Your task to perform on an android device: change alarm snooze length Image 0: 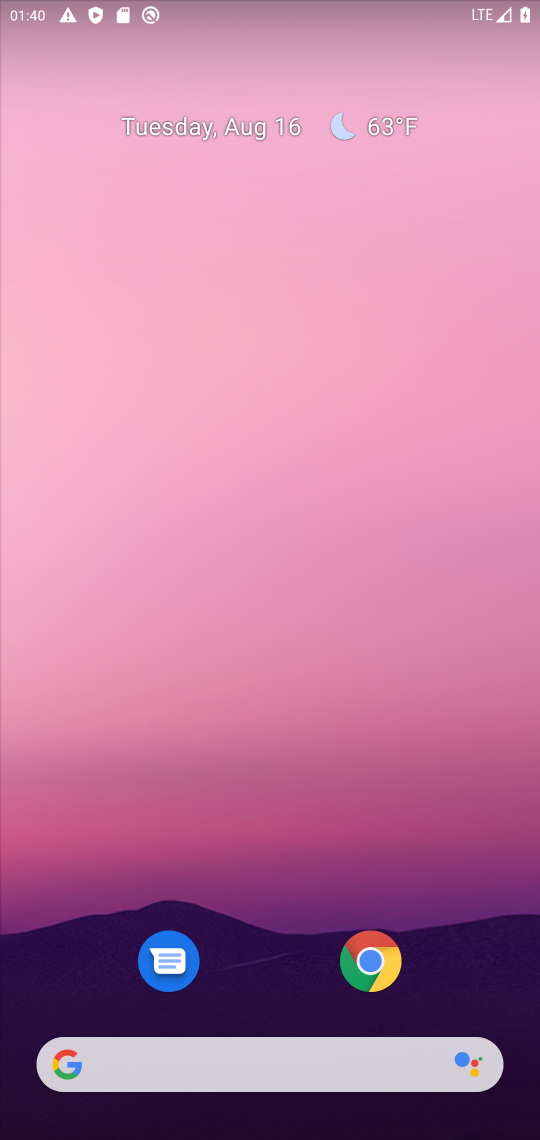
Step 0: press home button
Your task to perform on an android device: change alarm snooze length Image 1: 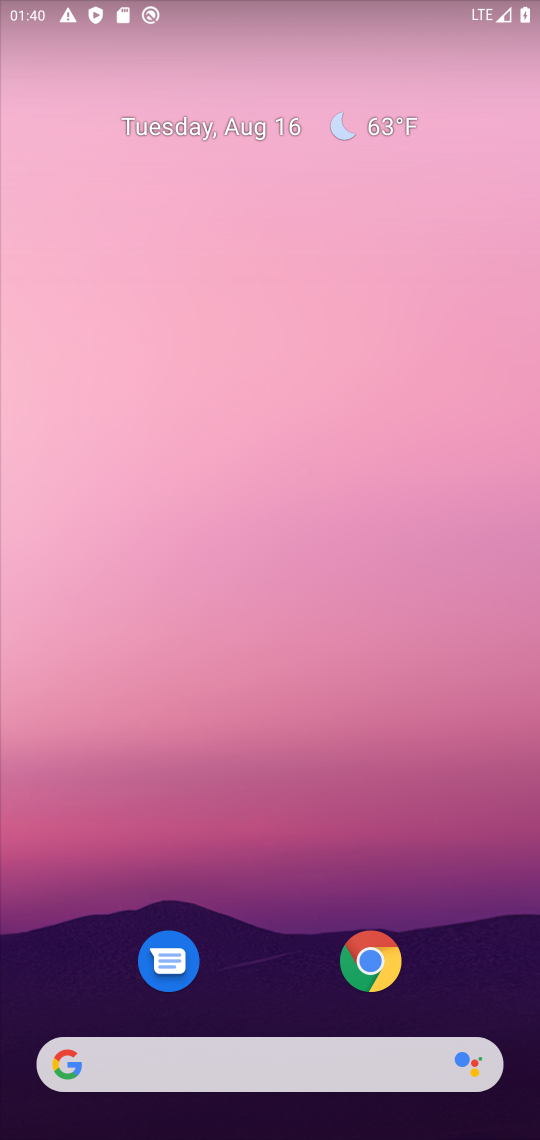
Step 1: drag from (265, 402) to (261, 174)
Your task to perform on an android device: change alarm snooze length Image 2: 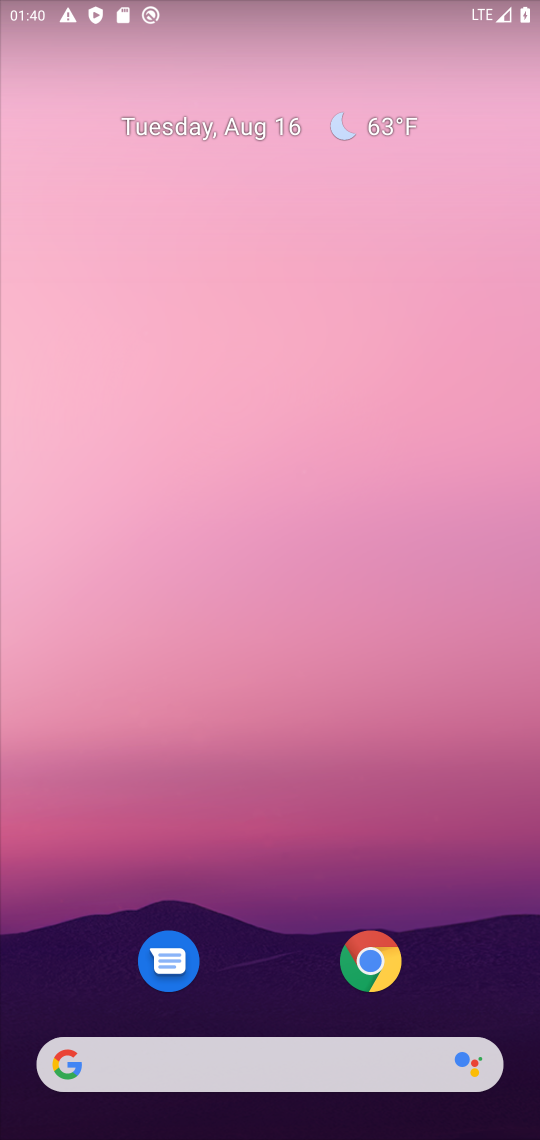
Step 2: drag from (301, 883) to (299, 356)
Your task to perform on an android device: change alarm snooze length Image 3: 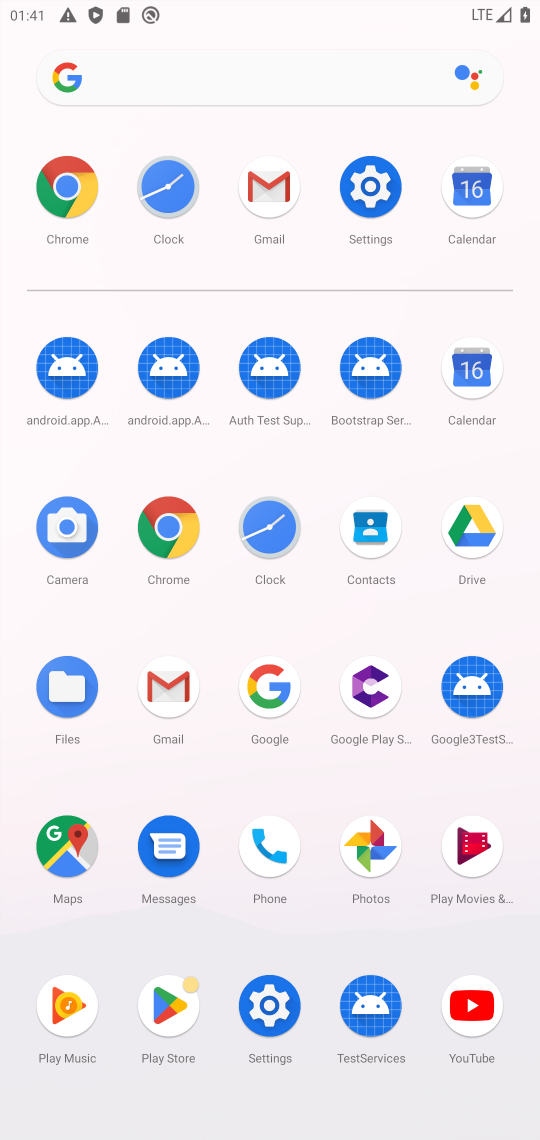
Step 3: click (274, 536)
Your task to perform on an android device: change alarm snooze length Image 4: 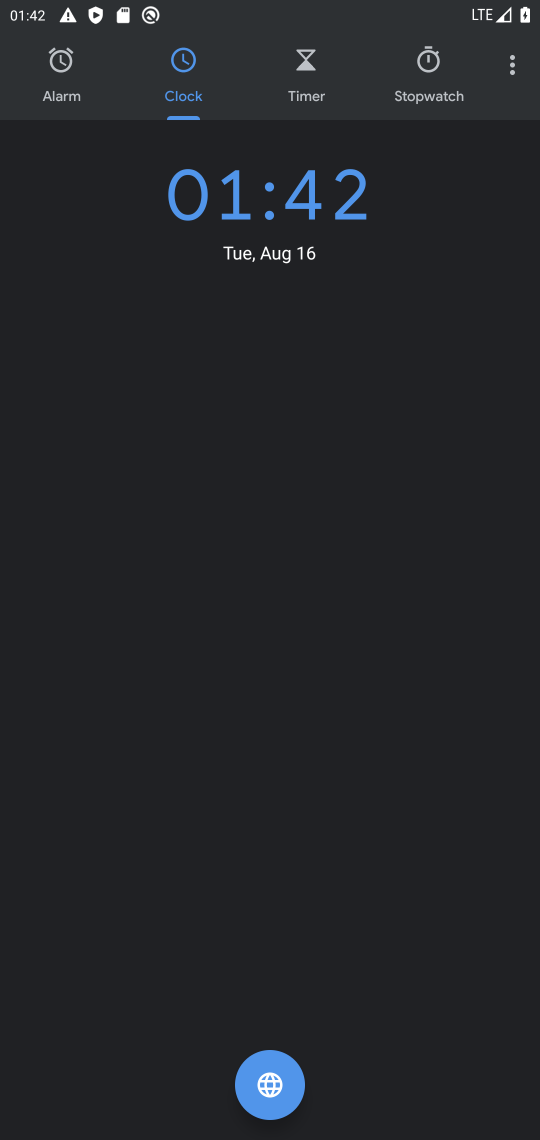
Step 4: click (504, 65)
Your task to perform on an android device: change alarm snooze length Image 5: 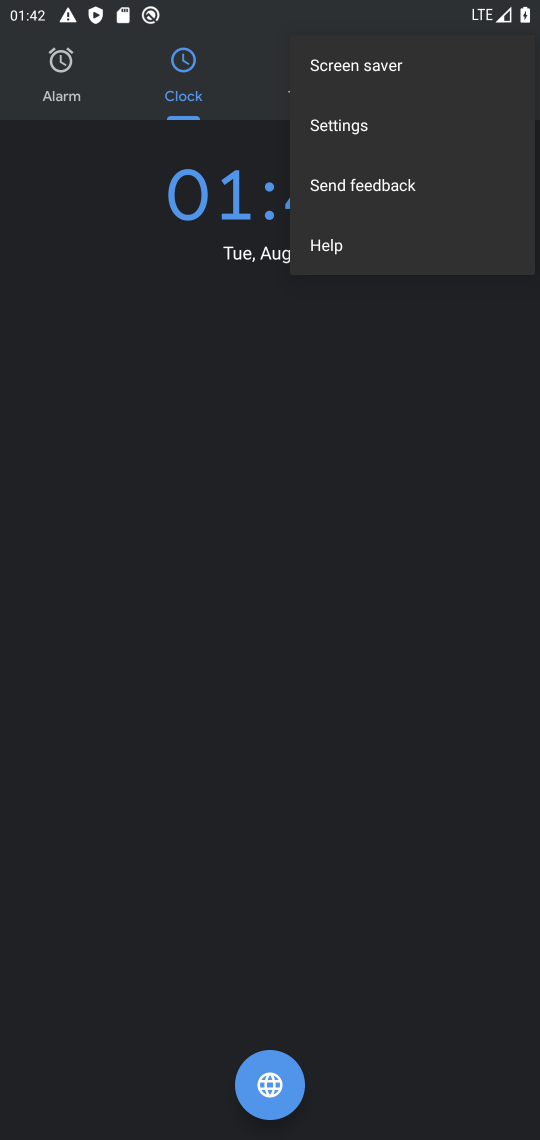
Step 5: click (373, 160)
Your task to perform on an android device: change alarm snooze length Image 6: 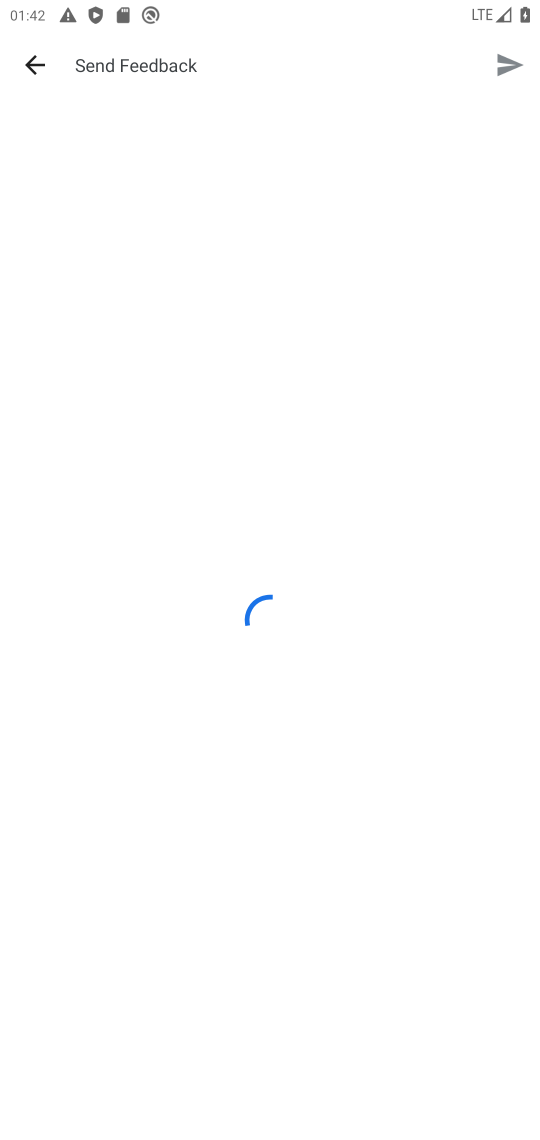
Step 6: press back button
Your task to perform on an android device: change alarm snooze length Image 7: 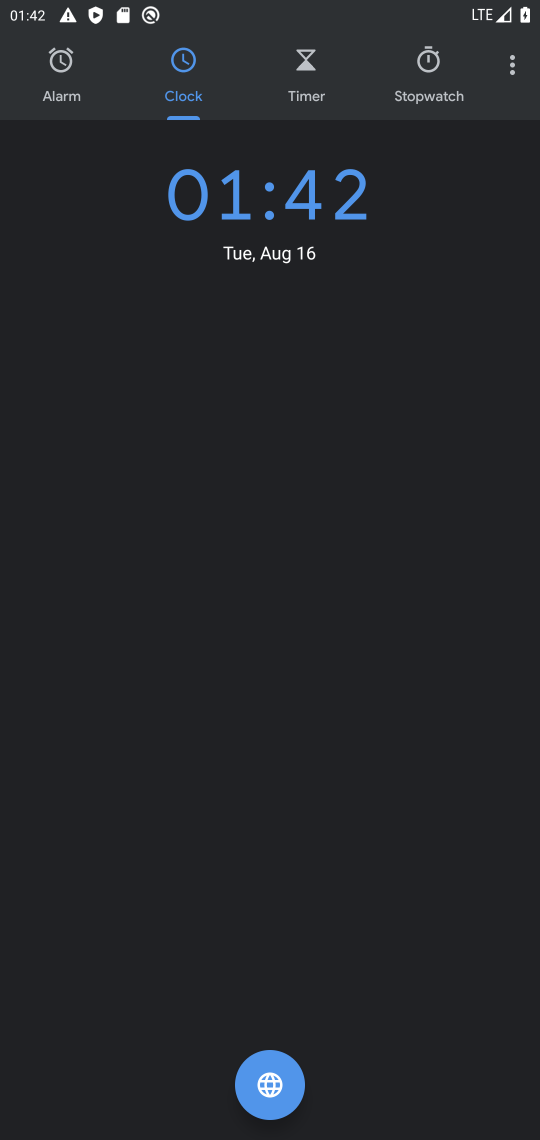
Step 7: click (503, 65)
Your task to perform on an android device: change alarm snooze length Image 8: 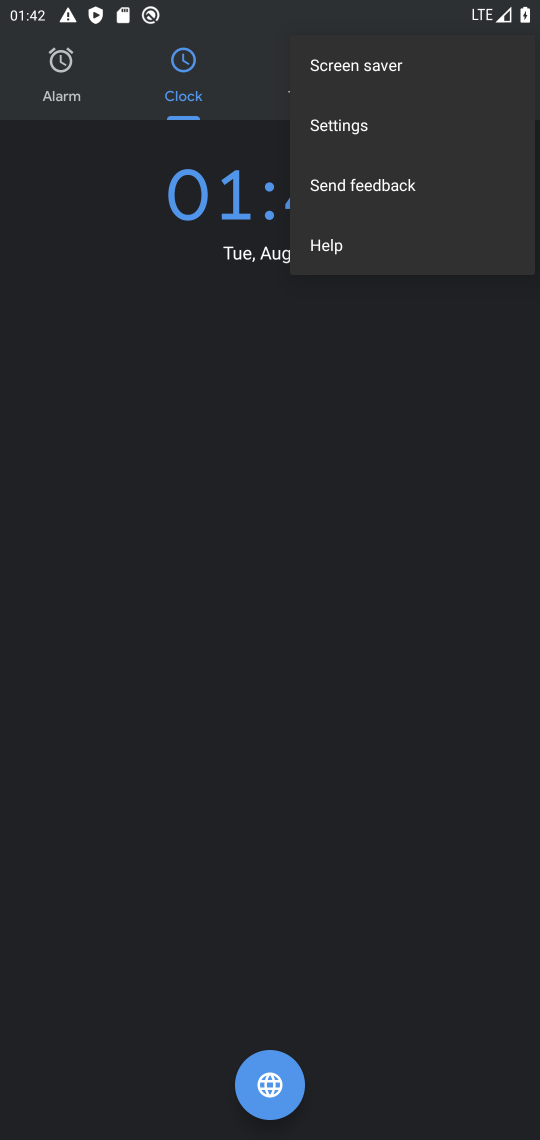
Step 8: click (334, 129)
Your task to perform on an android device: change alarm snooze length Image 9: 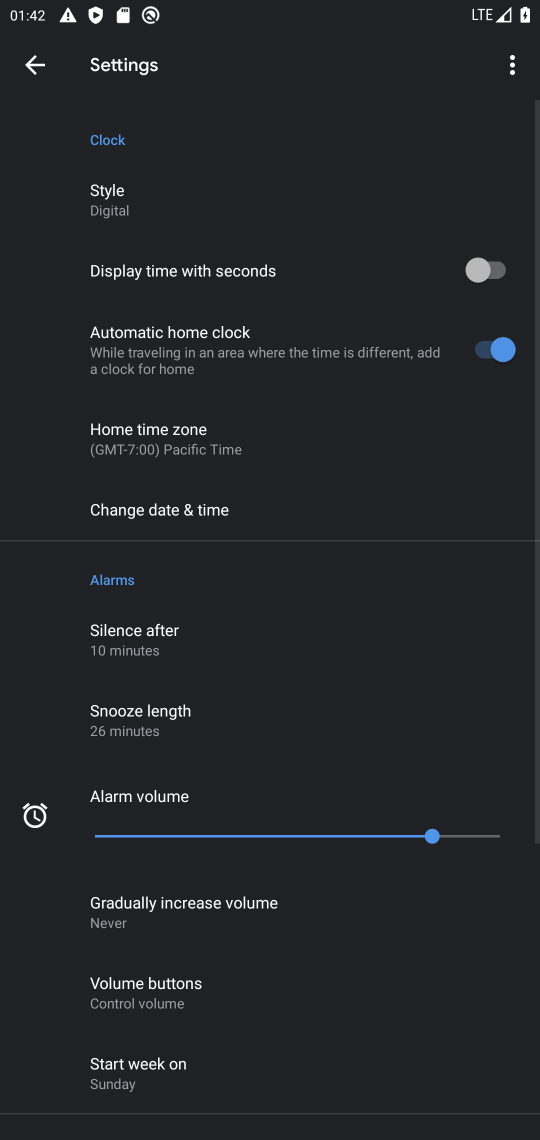
Step 9: click (166, 711)
Your task to perform on an android device: change alarm snooze length Image 10: 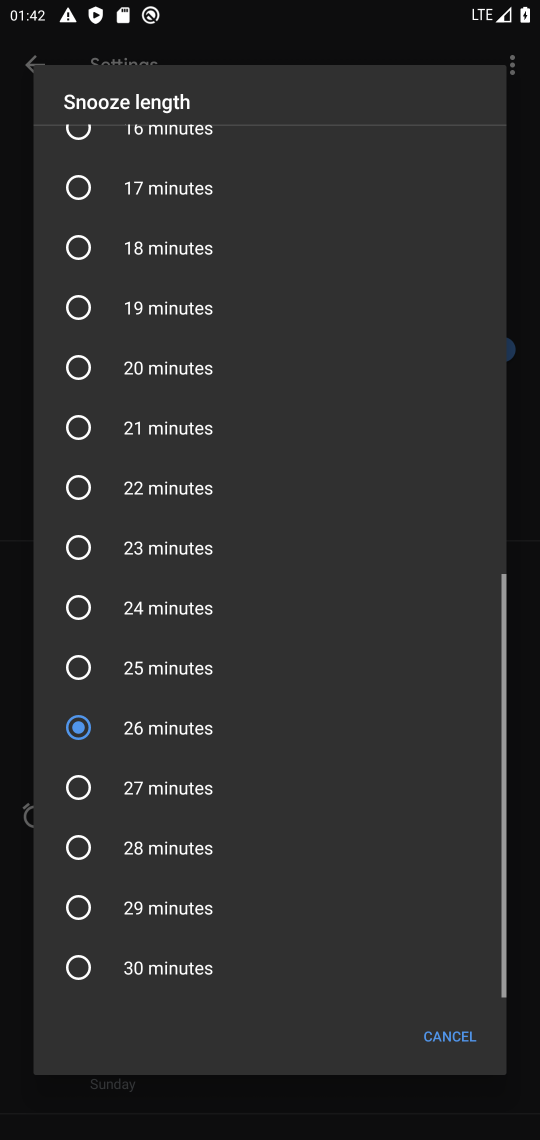
Step 10: click (207, 433)
Your task to perform on an android device: change alarm snooze length Image 11: 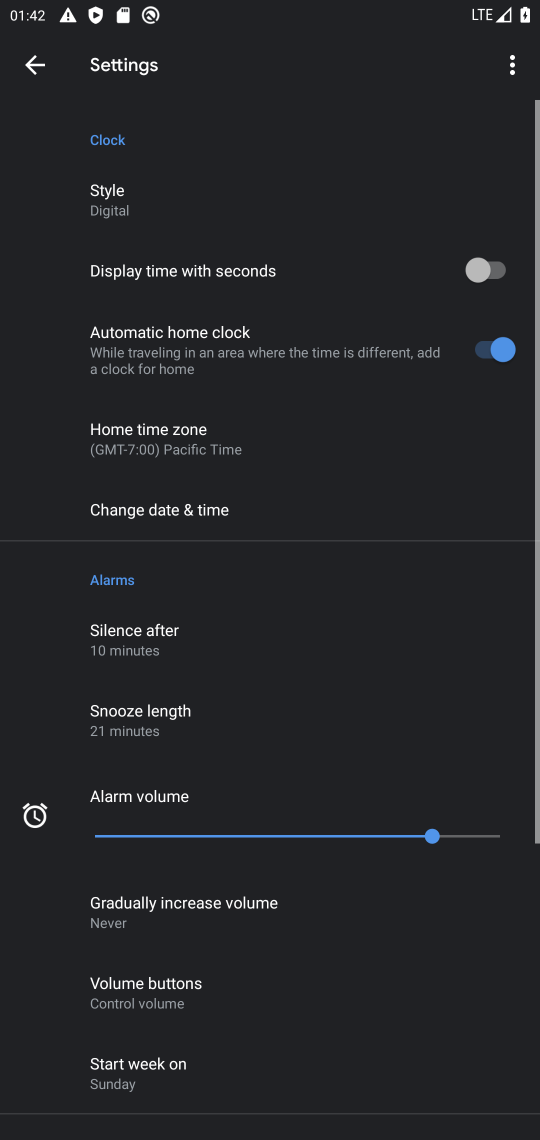
Step 11: task complete